Your task to perform on an android device: What's the weather today? Image 0: 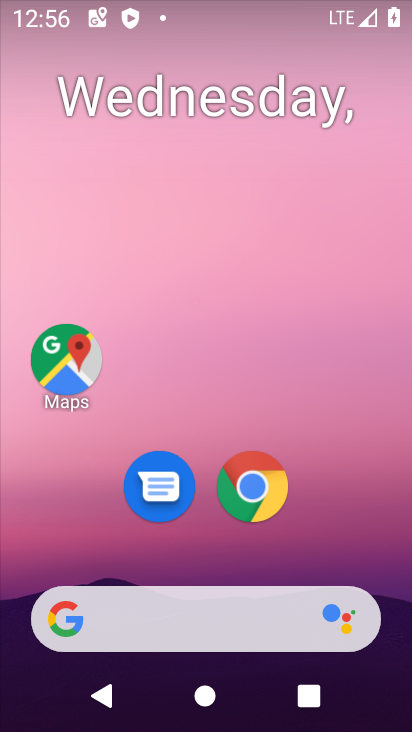
Step 0: click (261, 604)
Your task to perform on an android device: What's the weather today? Image 1: 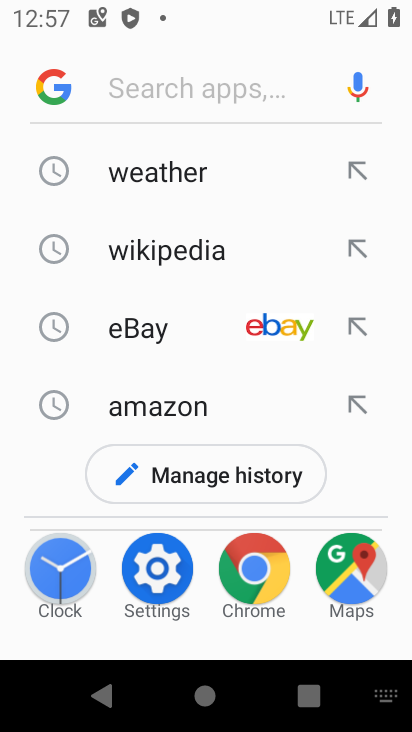
Step 1: click (192, 176)
Your task to perform on an android device: What's the weather today? Image 2: 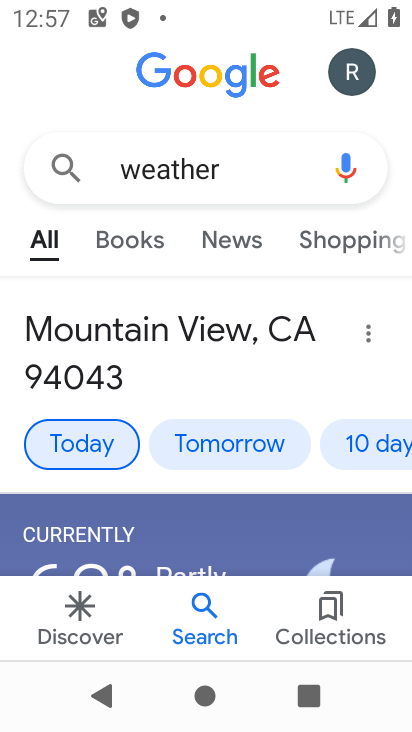
Step 2: task complete